Your task to perform on an android device: Go to network settings Image 0: 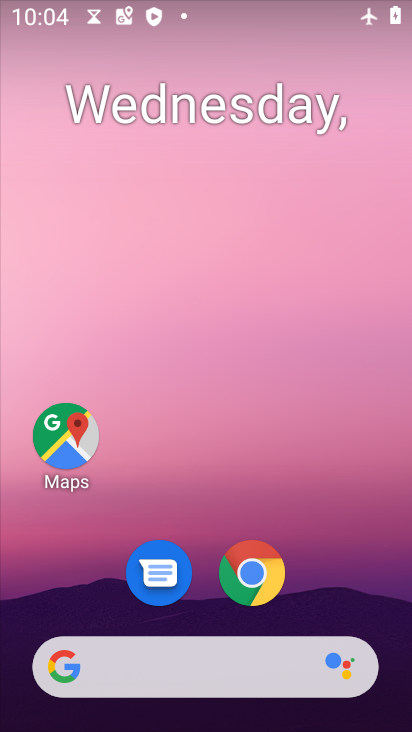
Step 0: drag from (309, 208) to (287, 71)
Your task to perform on an android device: Go to network settings Image 1: 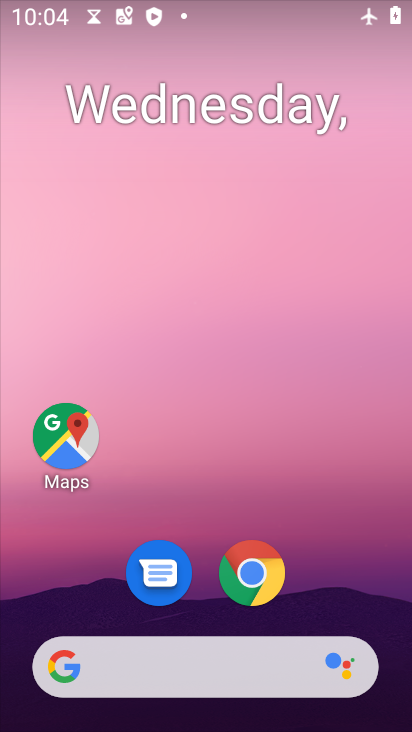
Step 1: drag from (335, 476) to (310, 220)
Your task to perform on an android device: Go to network settings Image 2: 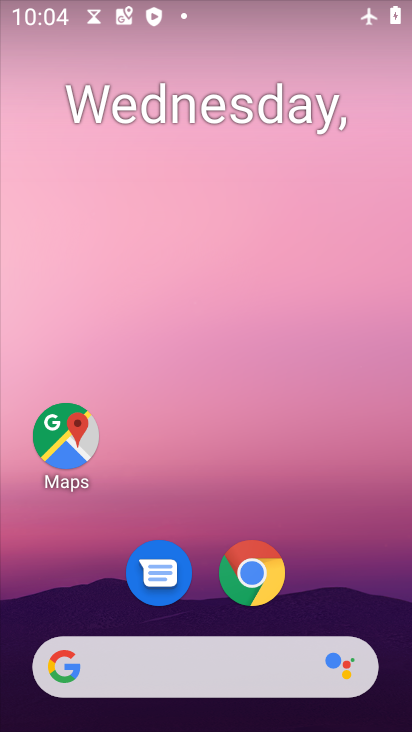
Step 2: drag from (327, 604) to (292, 155)
Your task to perform on an android device: Go to network settings Image 3: 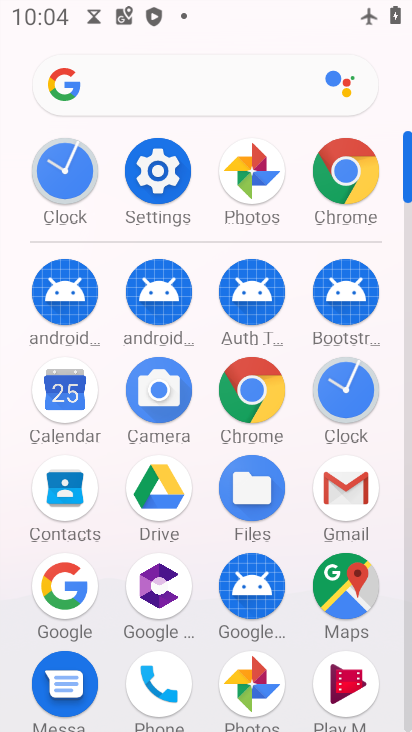
Step 3: click (146, 168)
Your task to perform on an android device: Go to network settings Image 4: 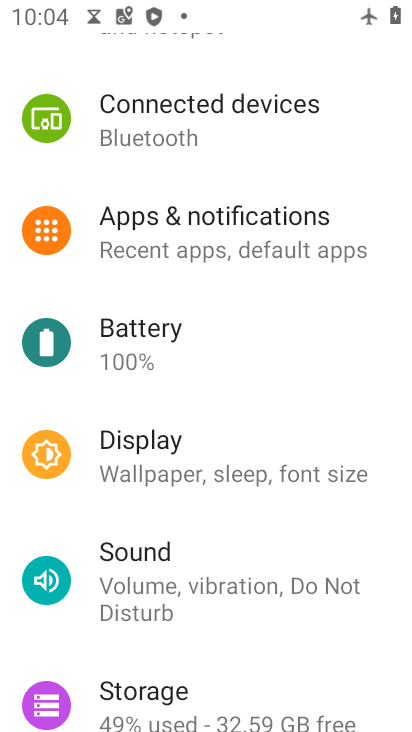
Step 4: drag from (212, 117) to (224, 525)
Your task to perform on an android device: Go to network settings Image 5: 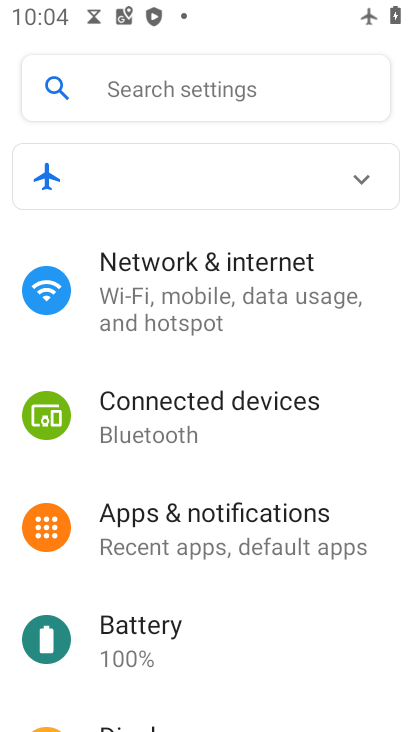
Step 5: click (197, 284)
Your task to perform on an android device: Go to network settings Image 6: 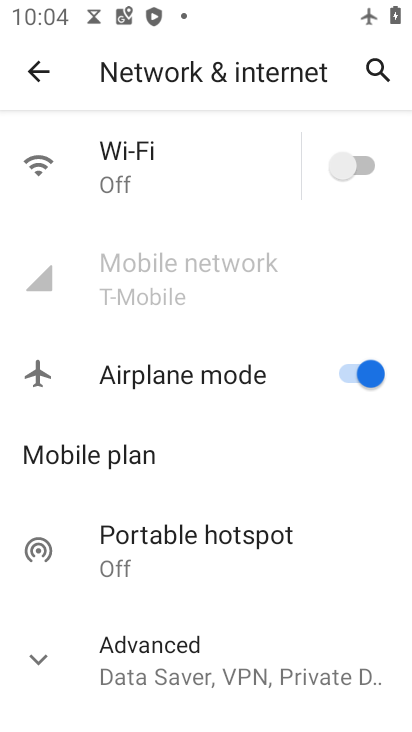
Step 6: task complete